Your task to perform on an android device: Open accessibility settings Image 0: 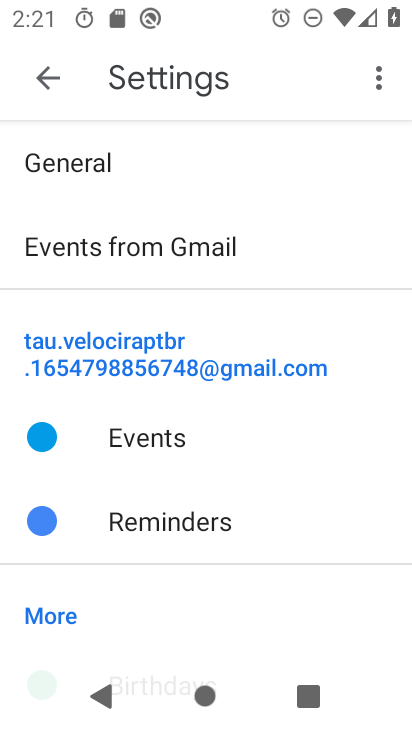
Step 0: press back button
Your task to perform on an android device: Open accessibility settings Image 1: 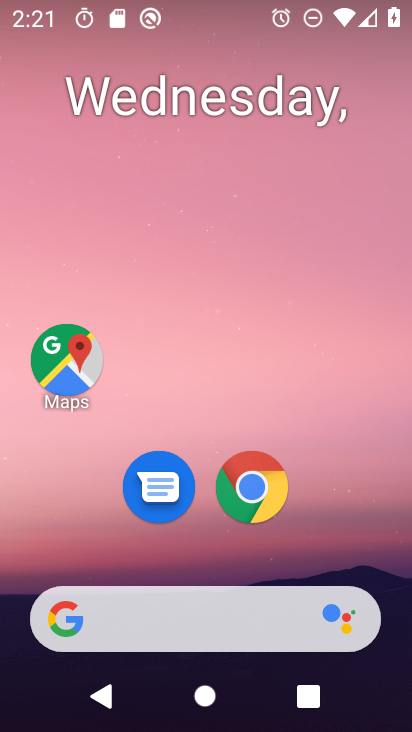
Step 1: drag from (75, 563) to (237, 3)
Your task to perform on an android device: Open accessibility settings Image 2: 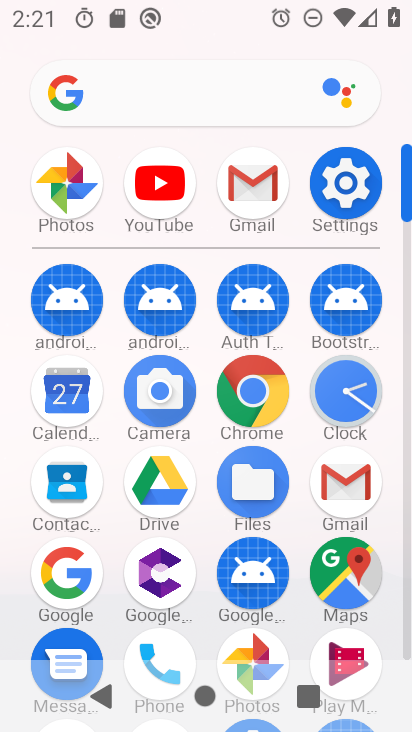
Step 2: click (350, 189)
Your task to perform on an android device: Open accessibility settings Image 3: 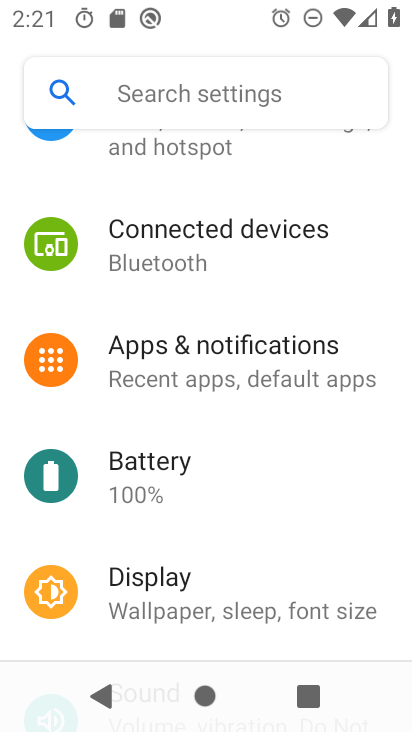
Step 3: drag from (172, 594) to (289, 23)
Your task to perform on an android device: Open accessibility settings Image 4: 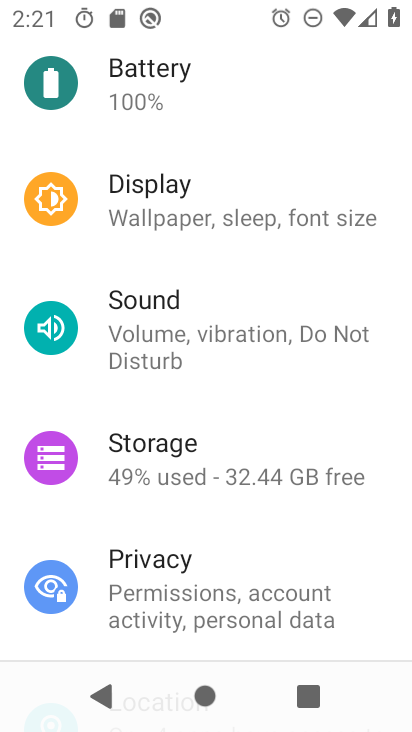
Step 4: drag from (200, 578) to (300, 10)
Your task to perform on an android device: Open accessibility settings Image 5: 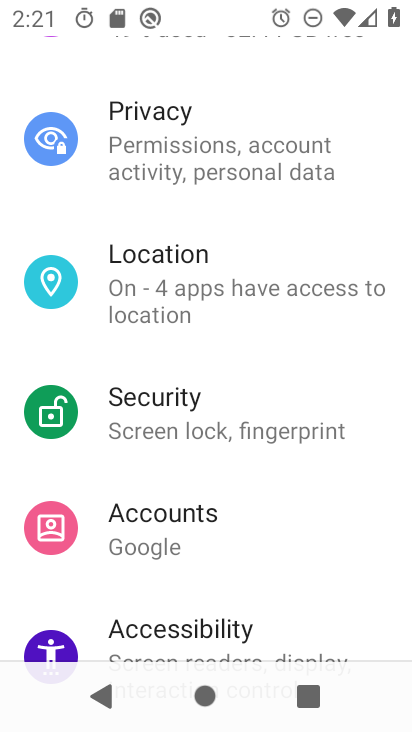
Step 5: drag from (182, 596) to (305, 23)
Your task to perform on an android device: Open accessibility settings Image 6: 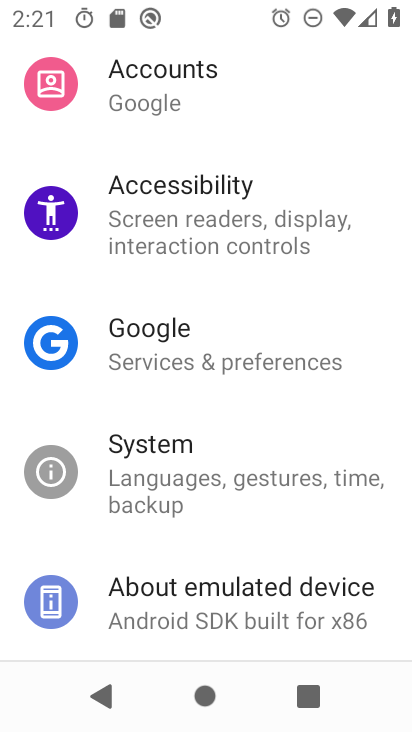
Step 6: click (193, 220)
Your task to perform on an android device: Open accessibility settings Image 7: 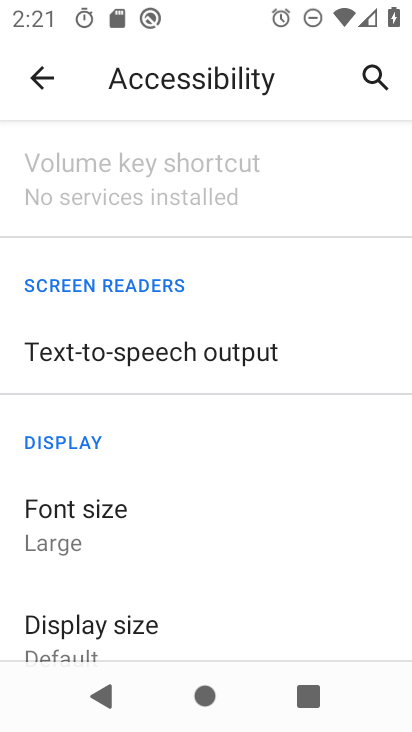
Step 7: task complete